Your task to perform on an android device: open app "Move to iOS" (install if not already installed) Image 0: 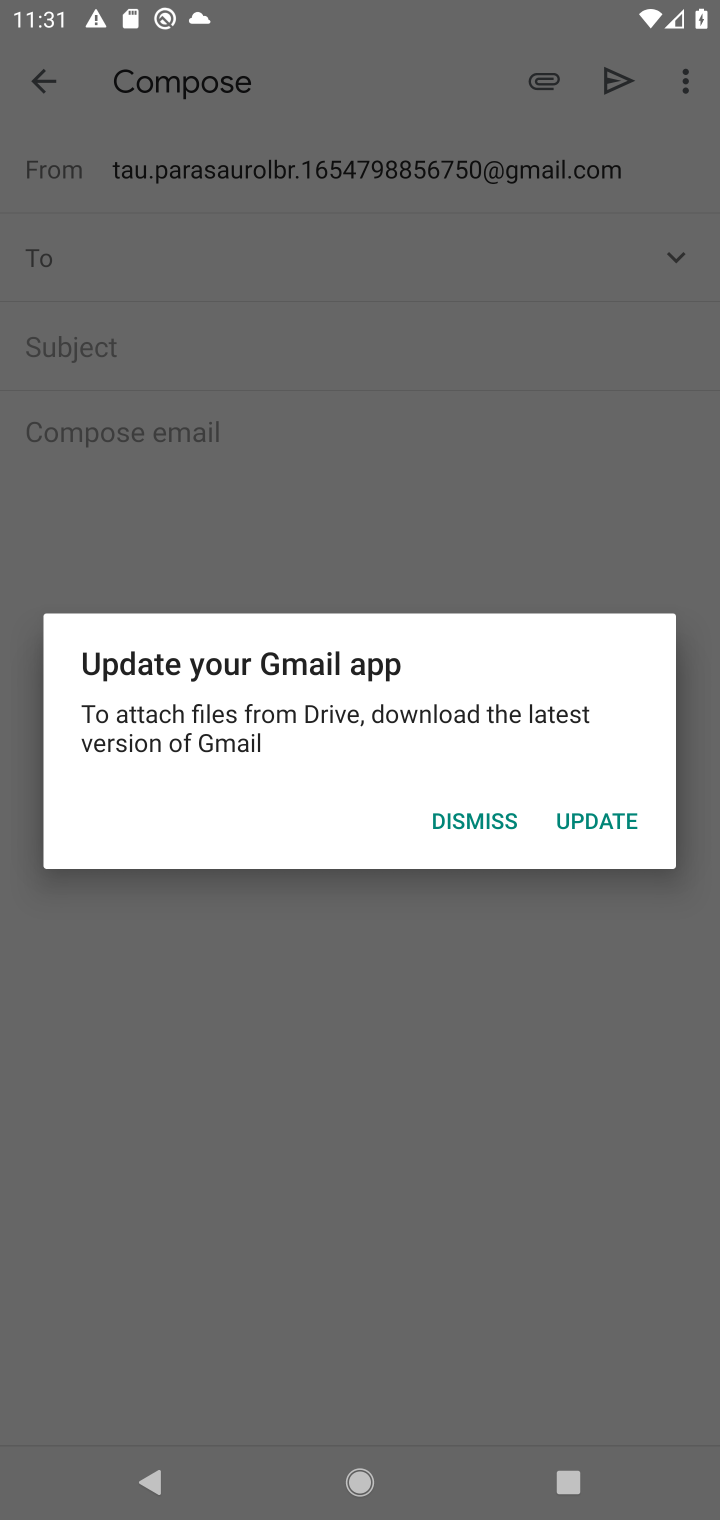
Step 0: click (626, 829)
Your task to perform on an android device: open app "Move to iOS" (install if not already installed) Image 1: 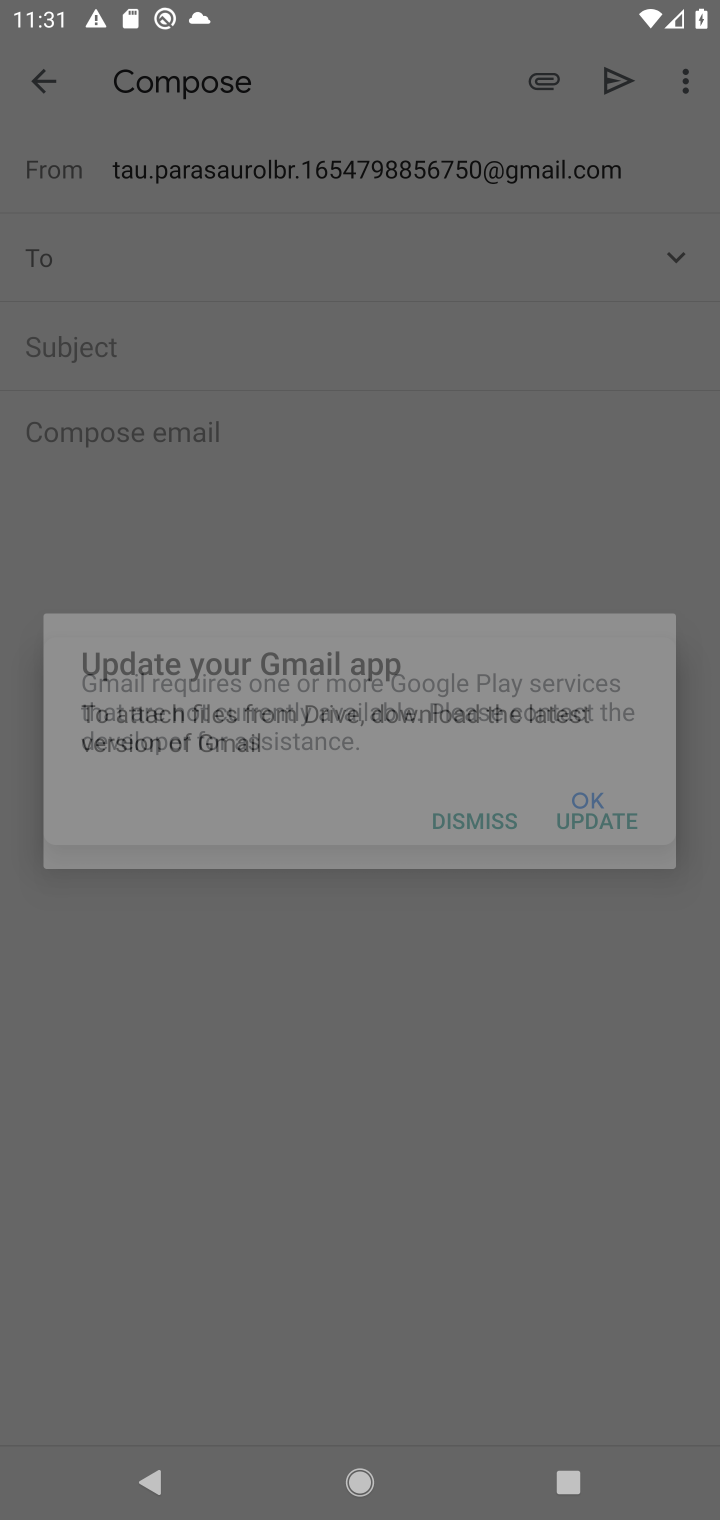
Step 1: press home button
Your task to perform on an android device: open app "Move to iOS" (install if not already installed) Image 2: 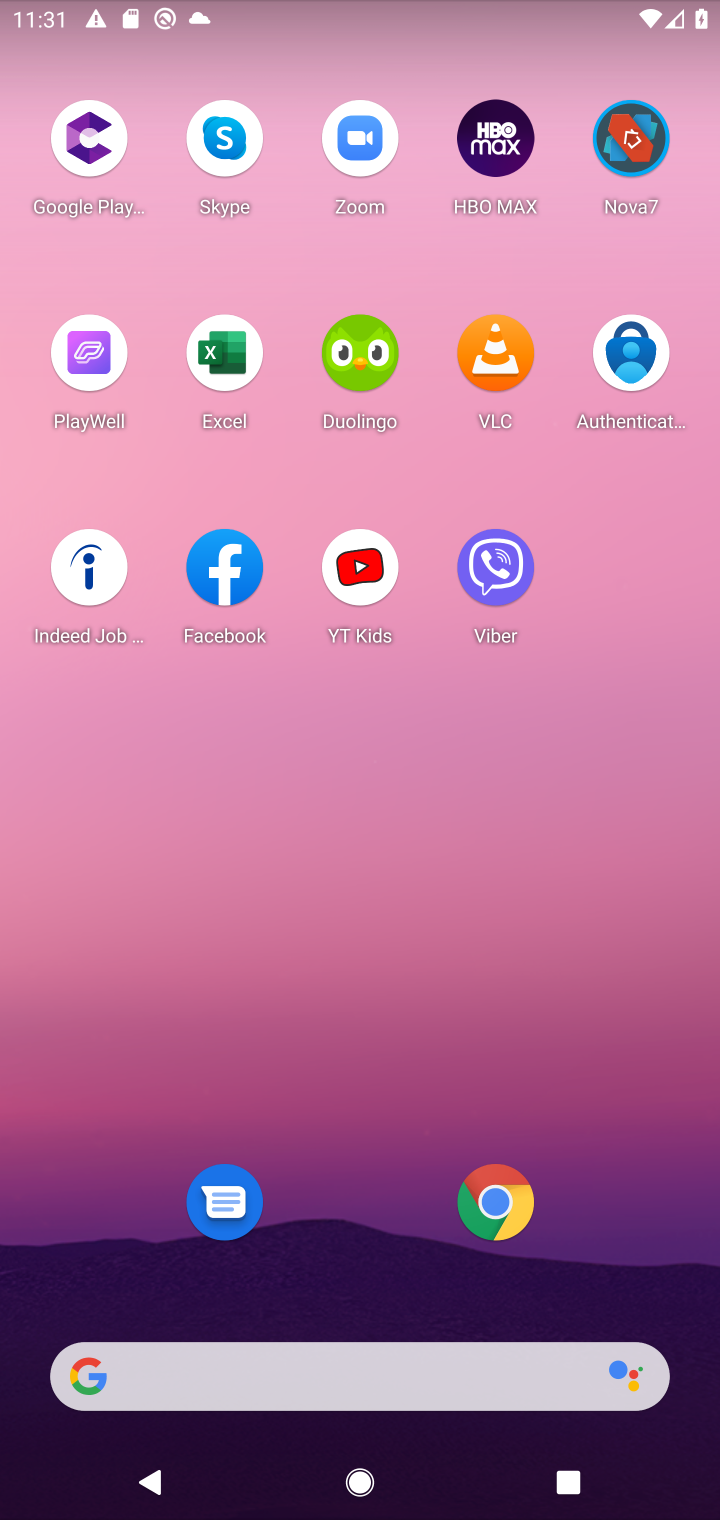
Step 2: click (257, 1363)
Your task to perform on an android device: open app "Move to iOS" (install if not already installed) Image 3: 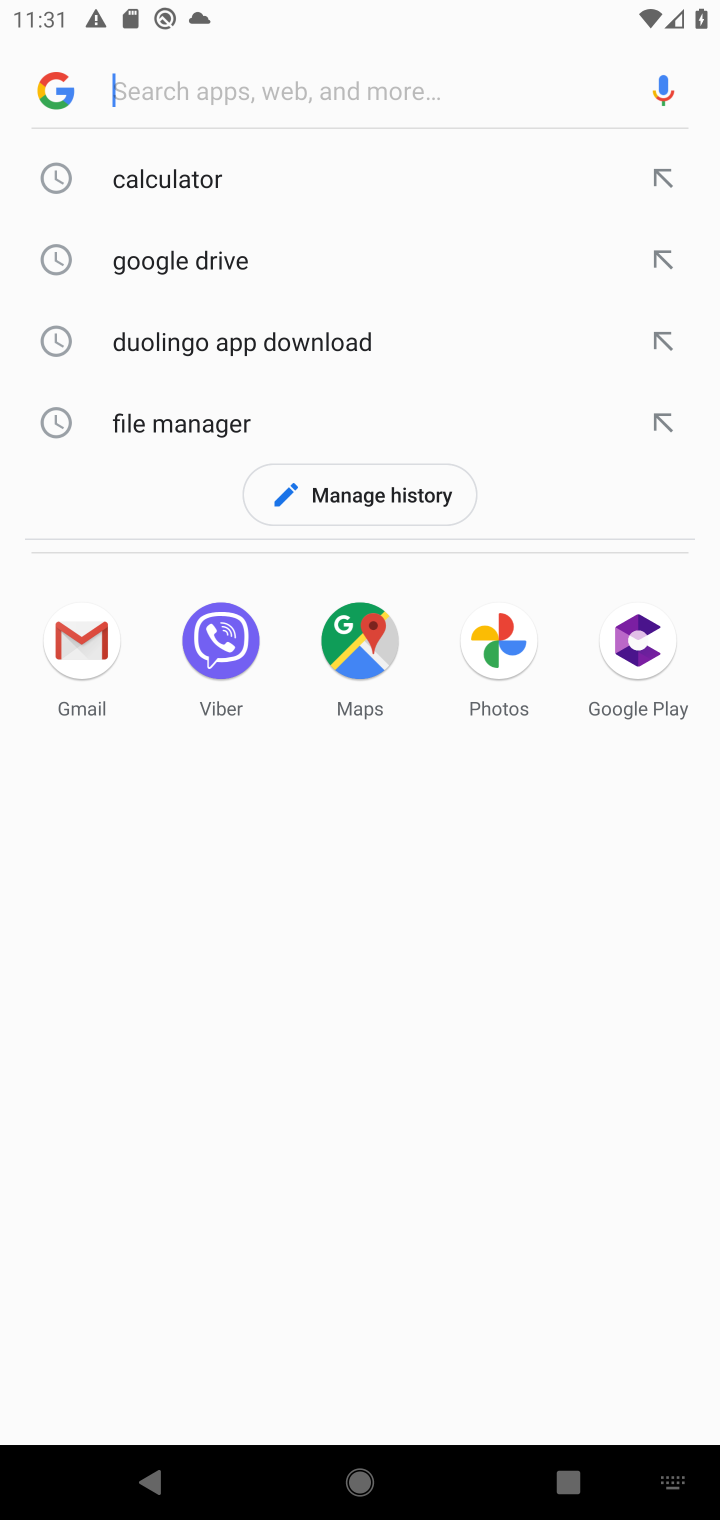
Step 3: type "move to iso"
Your task to perform on an android device: open app "Move to iOS" (install if not already installed) Image 4: 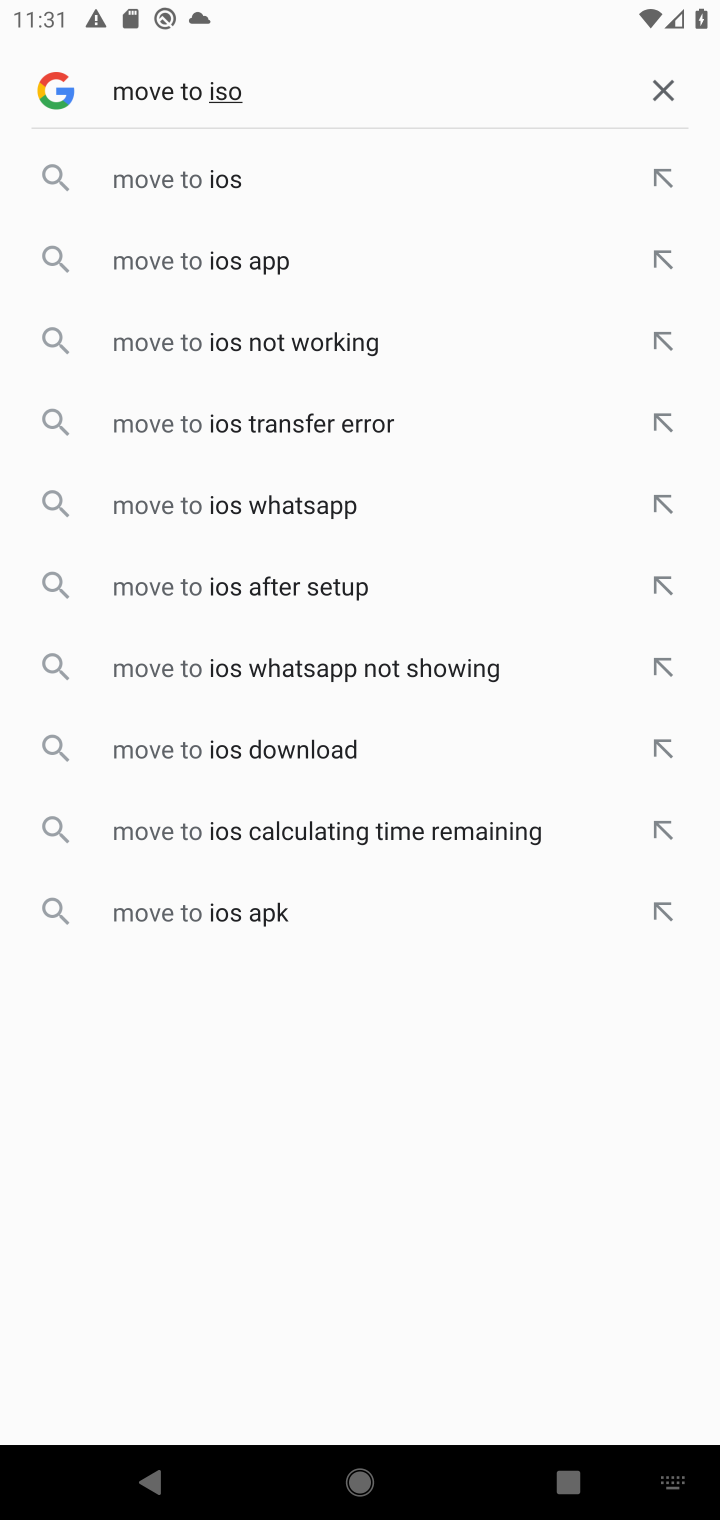
Step 4: click (158, 170)
Your task to perform on an android device: open app "Move to iOS" (install if not already installed) Image 5: 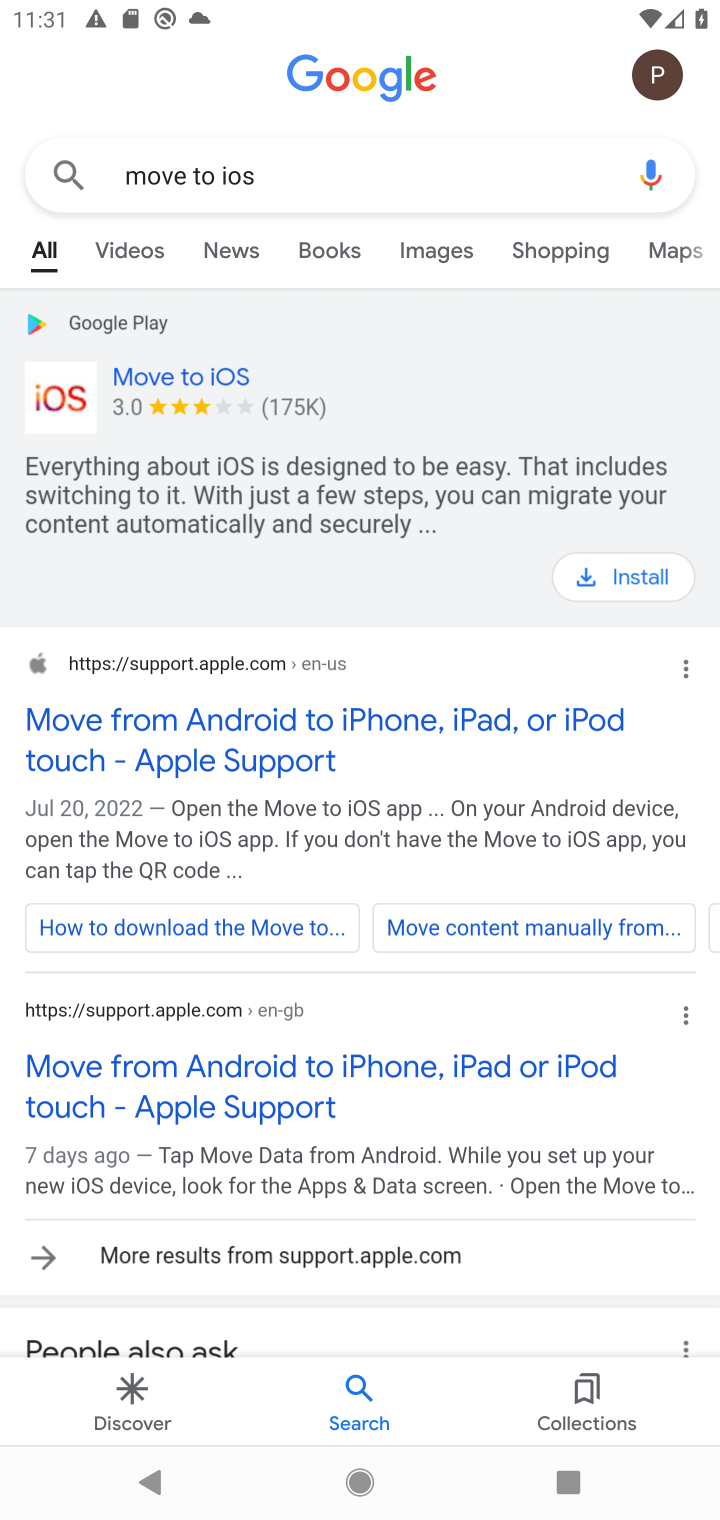
Step 5: click (607, 580)
Your task to perform on an android device: open app "Move to iOS" (install if not already installed) Image 6: 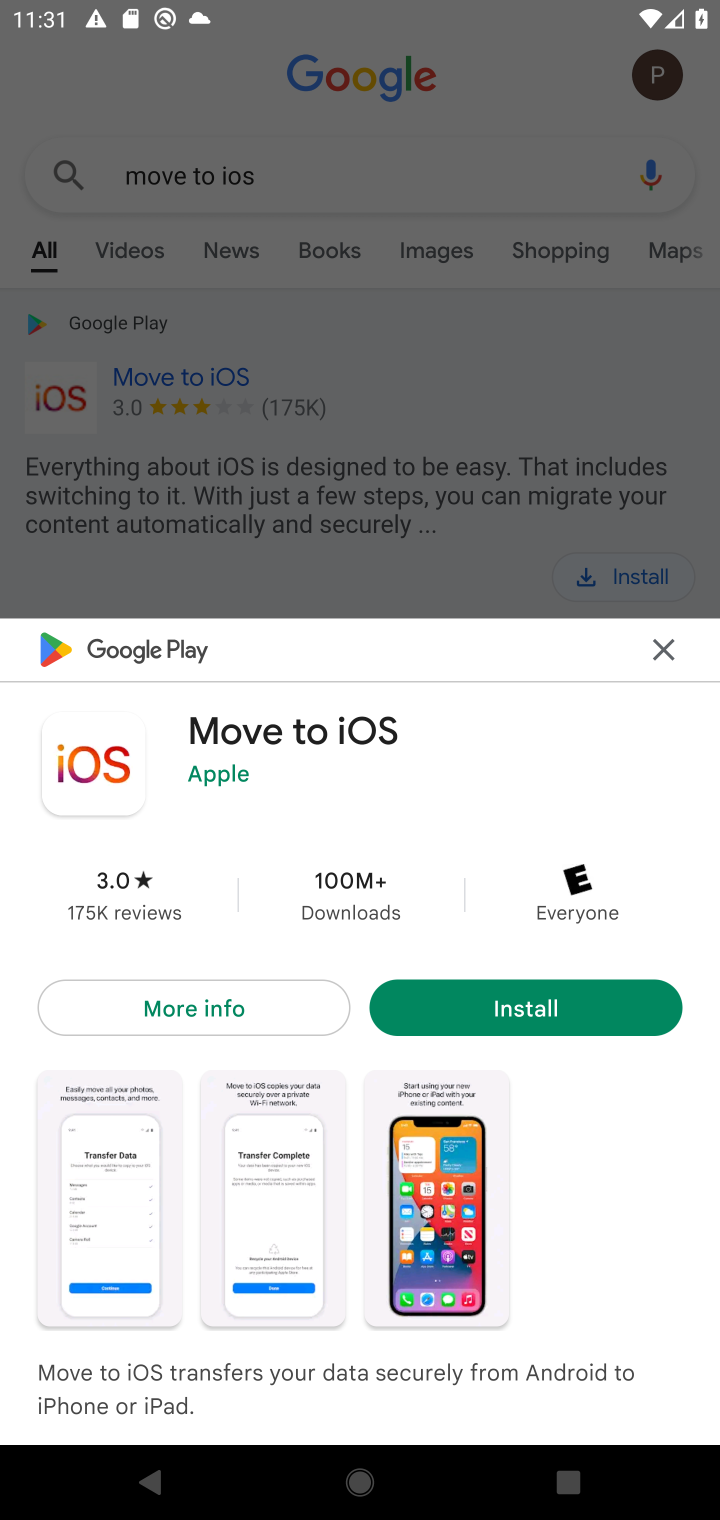
Step 6: click (609, 1028)
Your task to perform on an android device: open app "Move to iOS" (install if not already installed) Image 7: 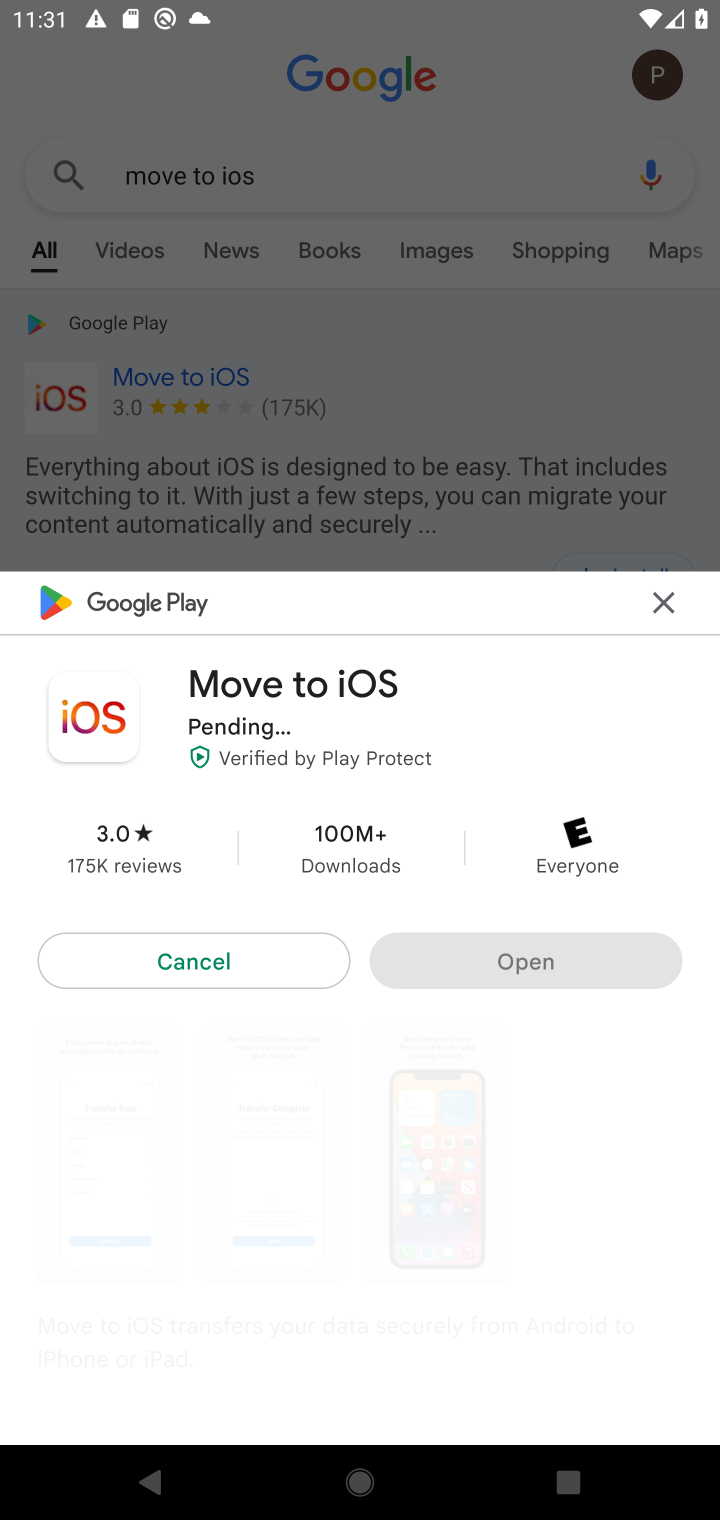
Step 7: task complete